Your task to perform on an android device: turn off sleep mode Image 0: 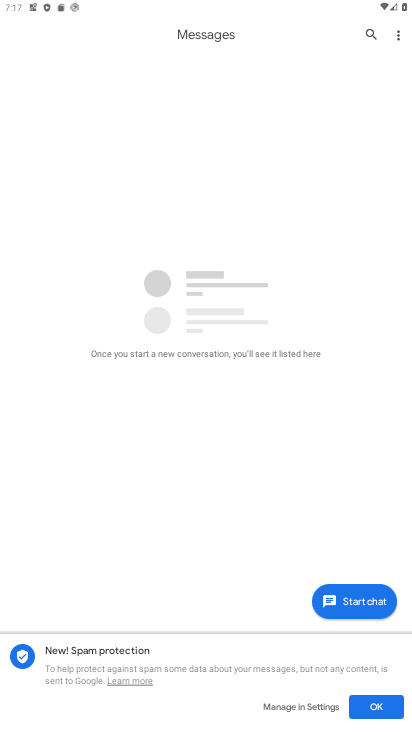
Step 0: press home button
Your task to perform on an android device: turn off sleep mode Image 1: 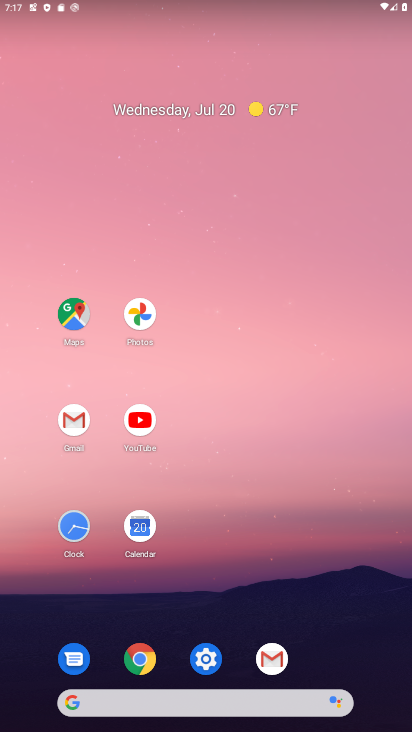
Step 1: click (206, 666)
Your task to perform on an android device: turn off sleep mode Image 2: 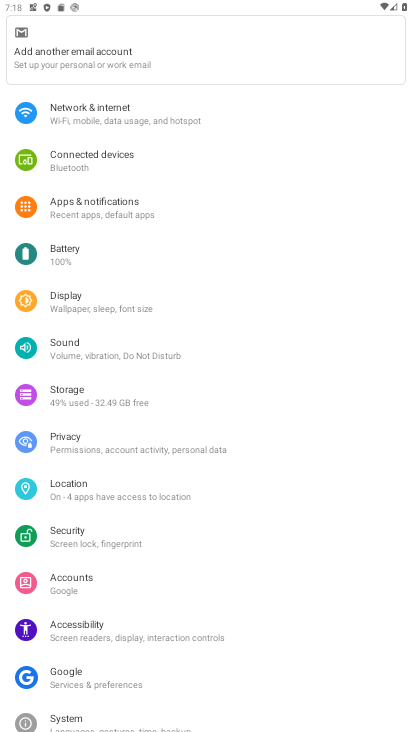
Step 2: click (68, 297)
Your task to perform on an android device: turn off sleep mode Image 3: 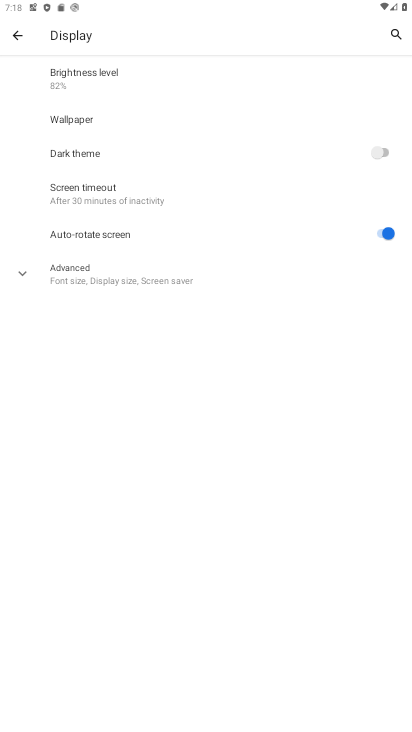
Step 3: task complete